Your task to perform on an android device: Open Google Maps Image 0: 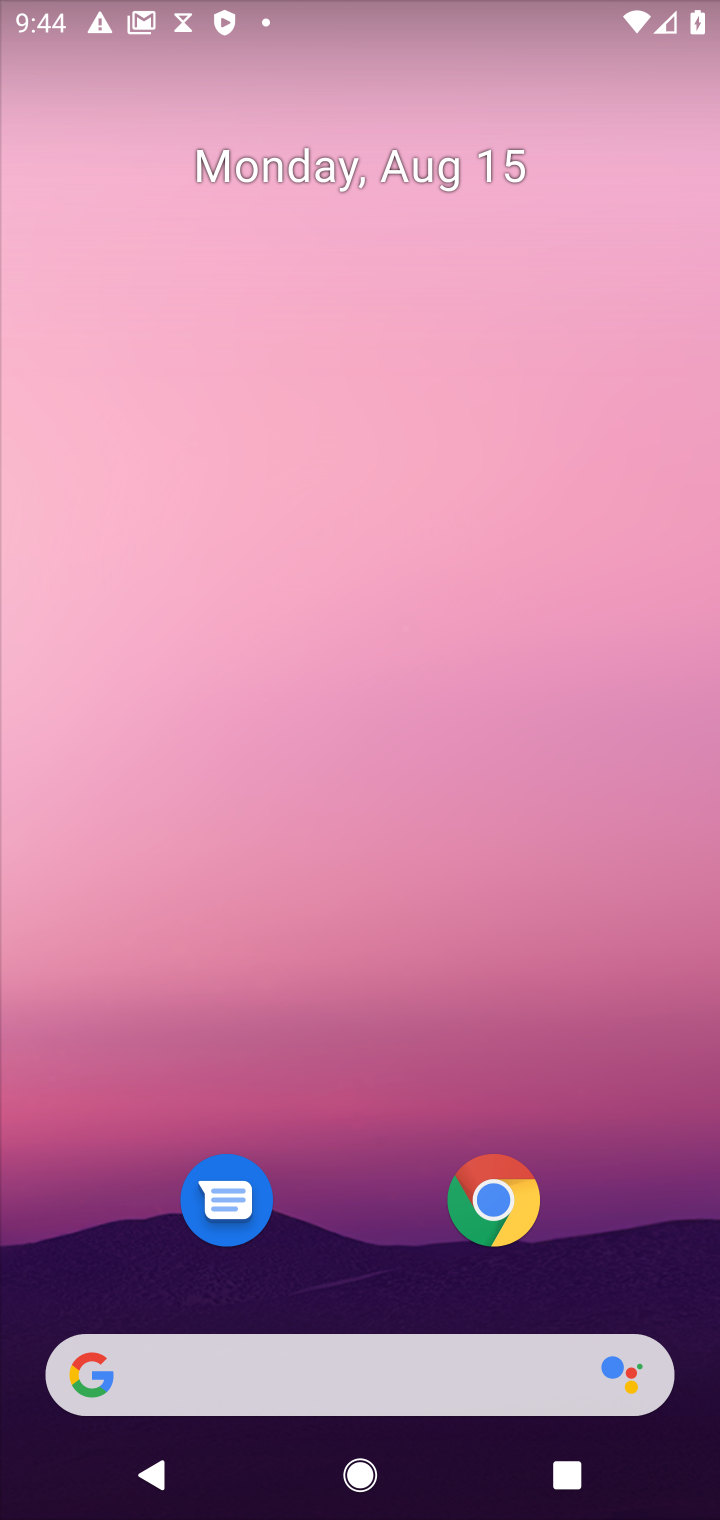
Step 0: drag from (363, 1099) to (387, 286)
Your task to perform on an android device: Open Google Maps Image 1: 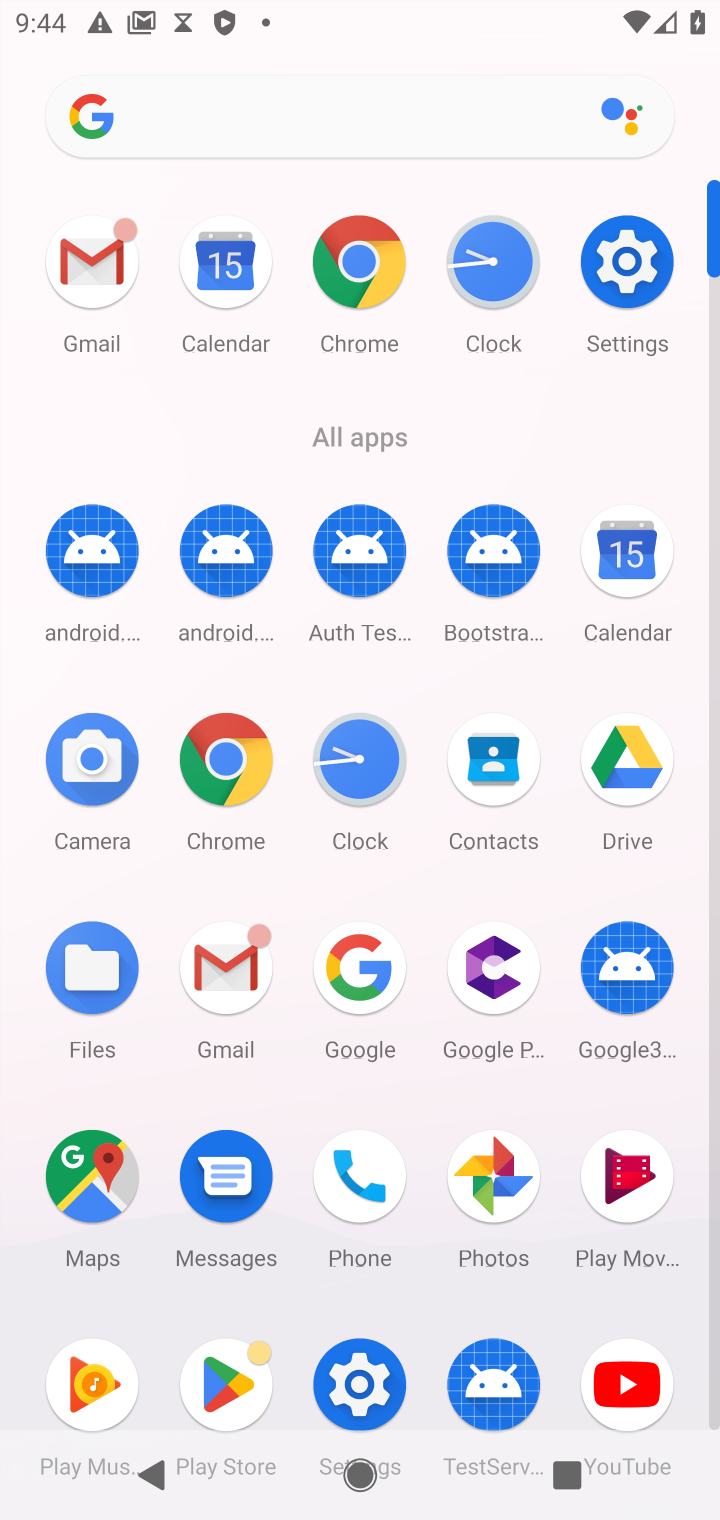
Step 1: drag from (282, 1071) to (323, 305)
Your task to perform on an android device: Open Google Maps Image 2: 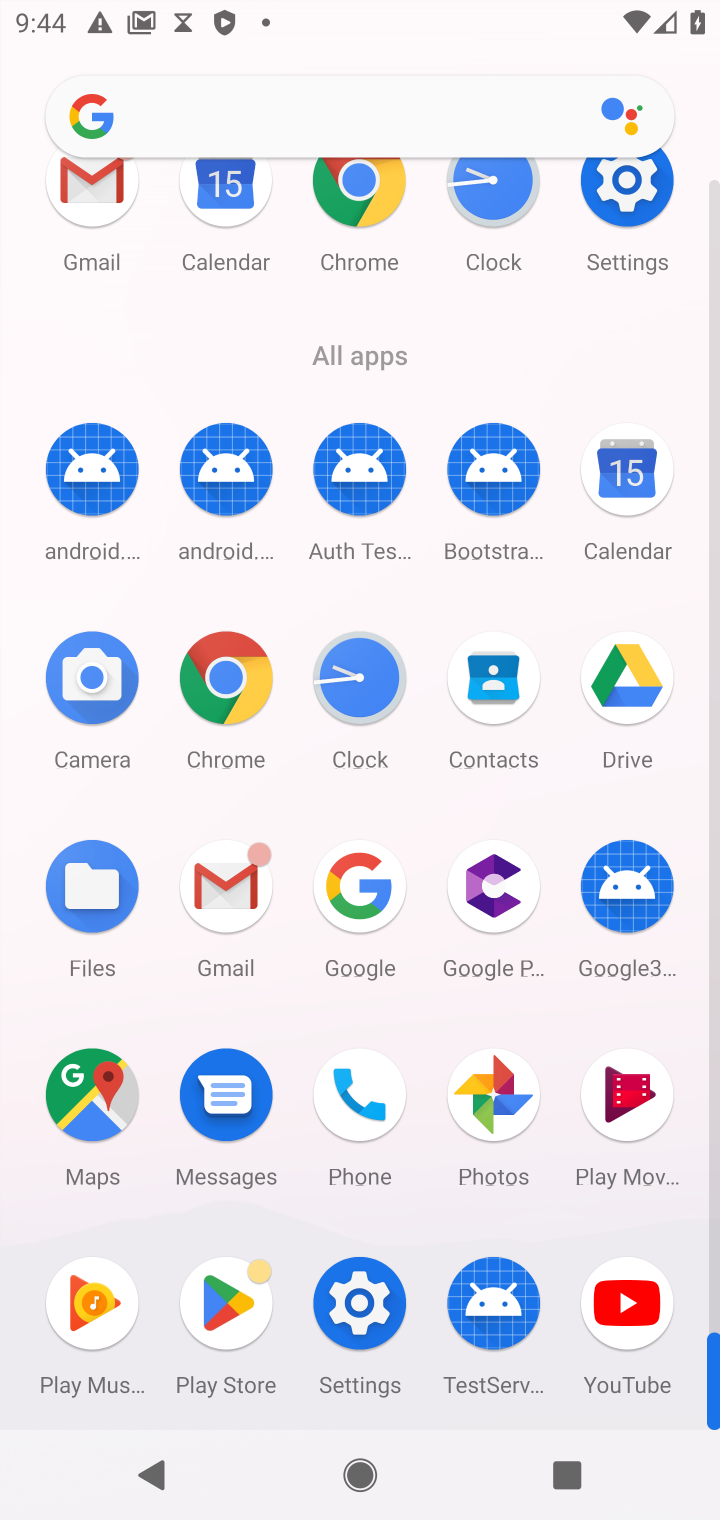
Step 2: click (81, 1102)
Your task to perform on an android device: Open Google Maps Image 3: 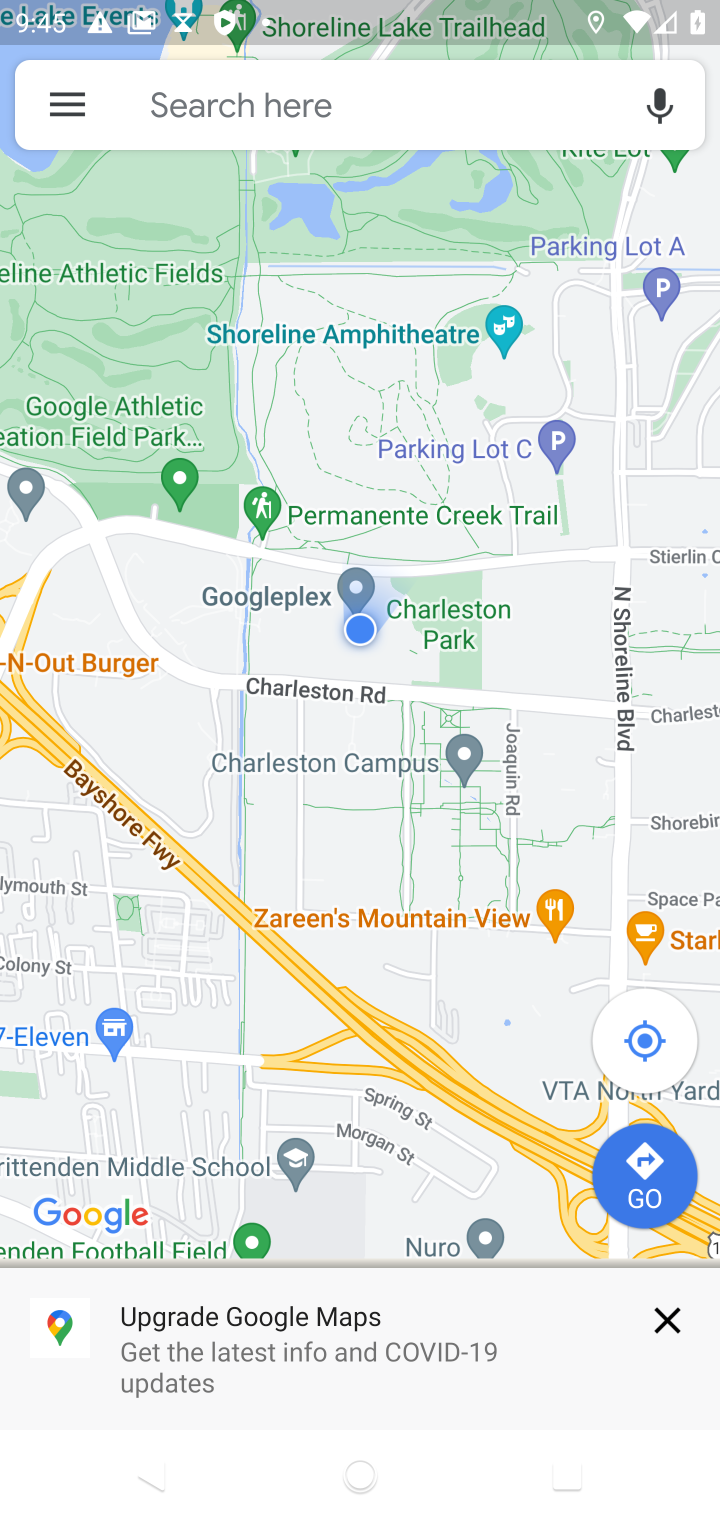
Step 3: task complete